Your task to perform on an android device: move an email to a new category in the gmail app Image 0: 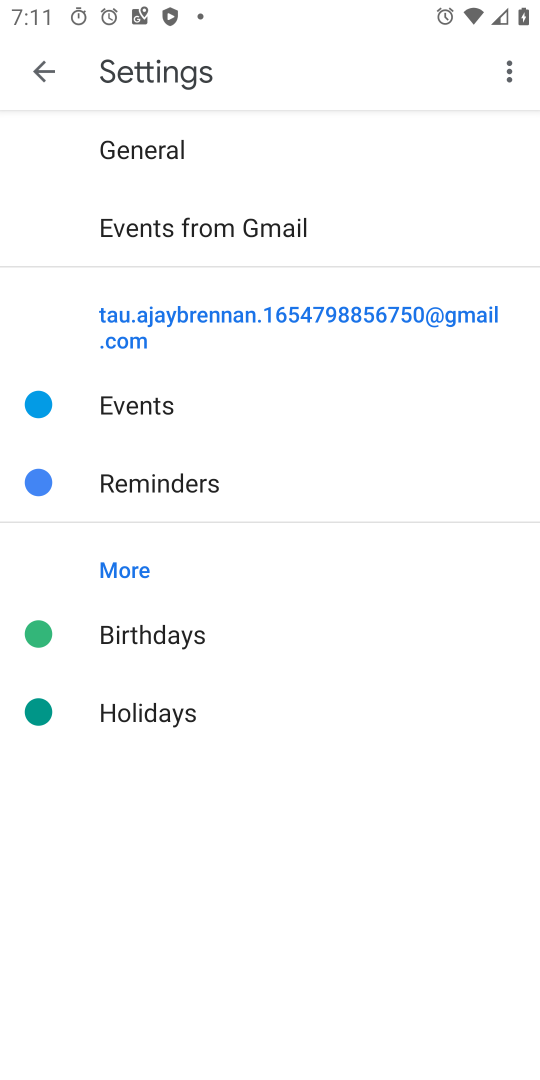
Step 0: press home button
Your task to perform on an android device: move an email to a new category in the gmail app Image 1: 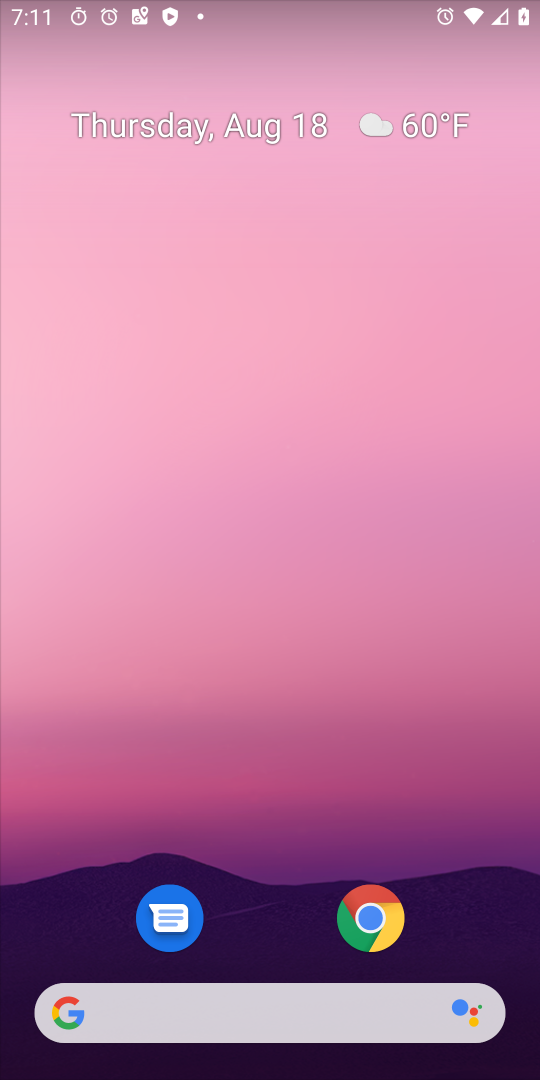
Step 1: drag from (260, 919) to (280, 132)
Your task to perform on an android device: move an email to a new category in the gmail app Image 2: 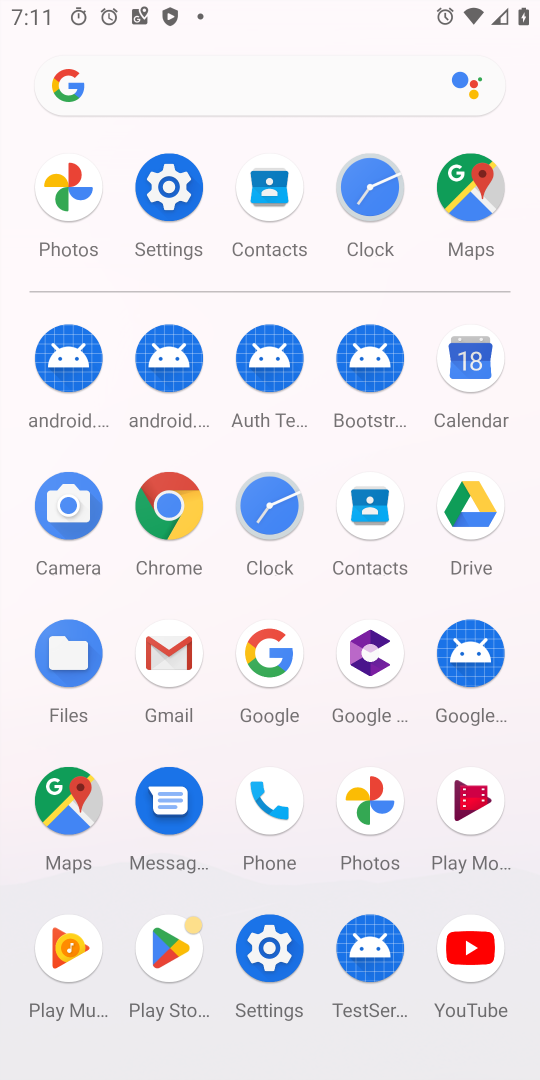
Step 2: click (171, 656)
Your task to perform on an android device: move an email to a new category in the gmail app Image 3: 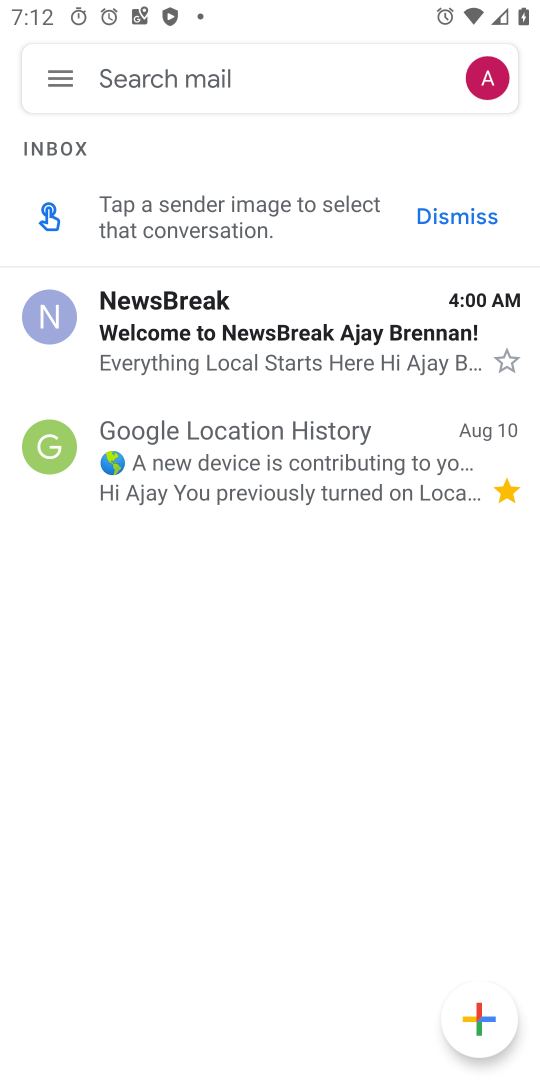
Step 3: click (235, 460)
Your task to perform on an android device: move an email to a new category in the gmail app Image 4: 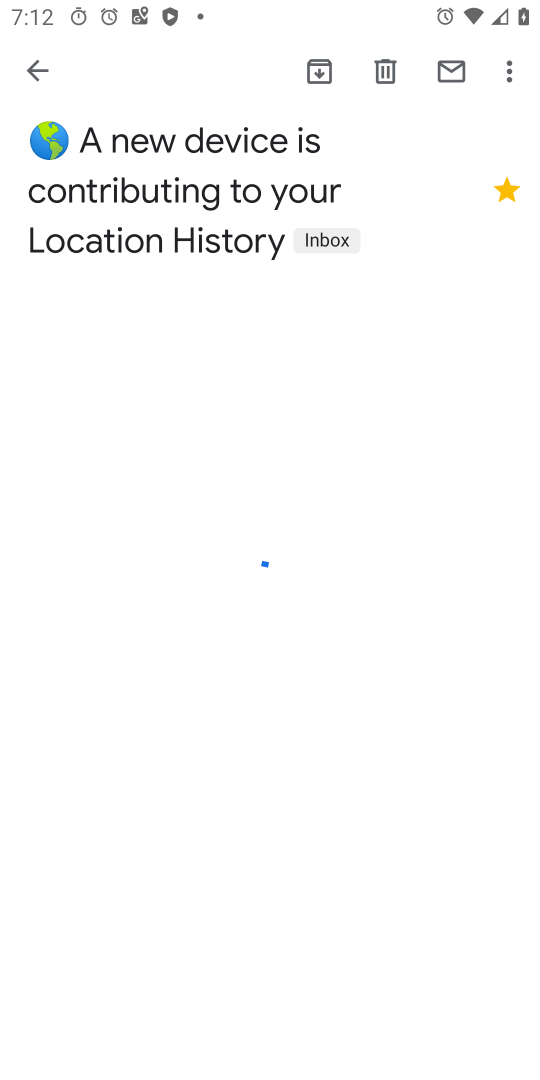
Step 4: click (514, 67)
Your task to perform on an android device: move an email to a new category in the gmail app Image 5: 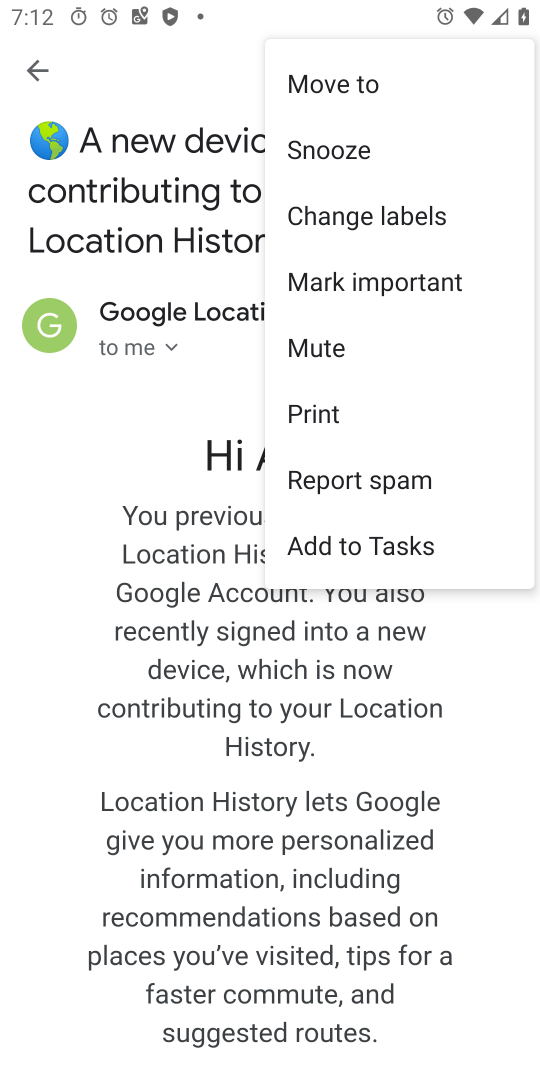
Step 5: click (330, 84)
Your task to perform on an android device: move an email to a new category in the gmail app Image 6: 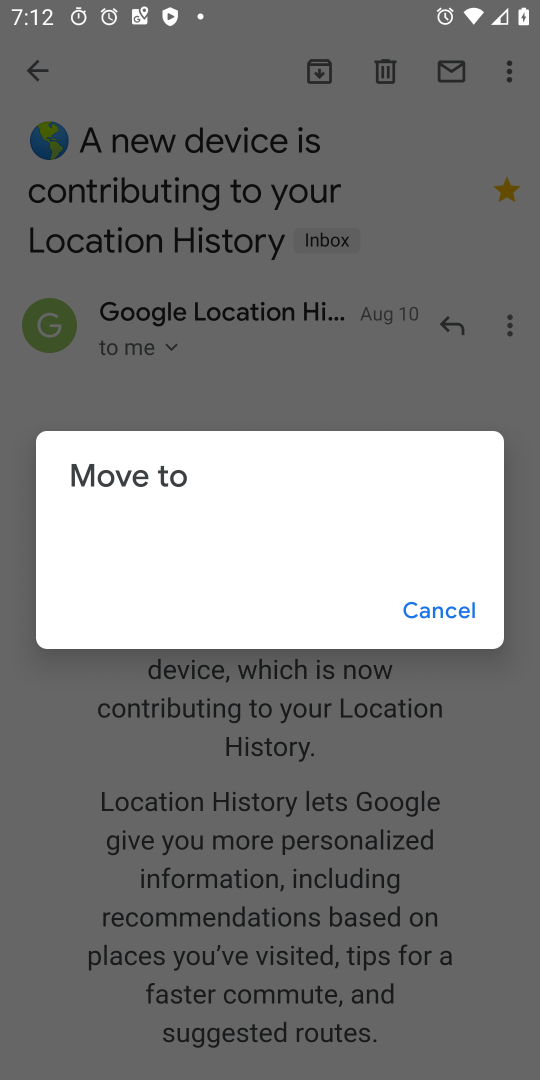
Step 6: task complete